Your task to perform on an android device: Add logitech g pro to the cart on bestbuy Image 0: 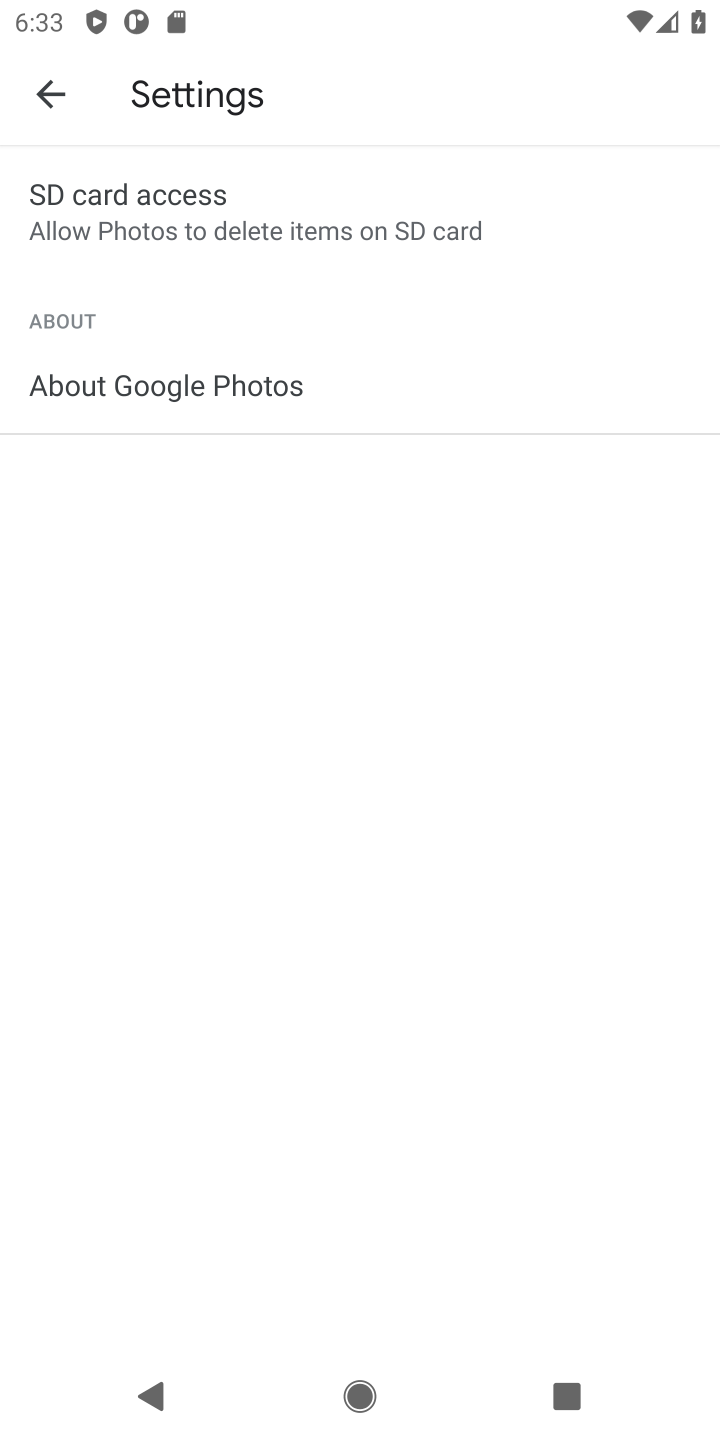
Step 0: press home button
Your task to perform on an android device: Add logitech g pro to the cart on bestbuy Image 1: 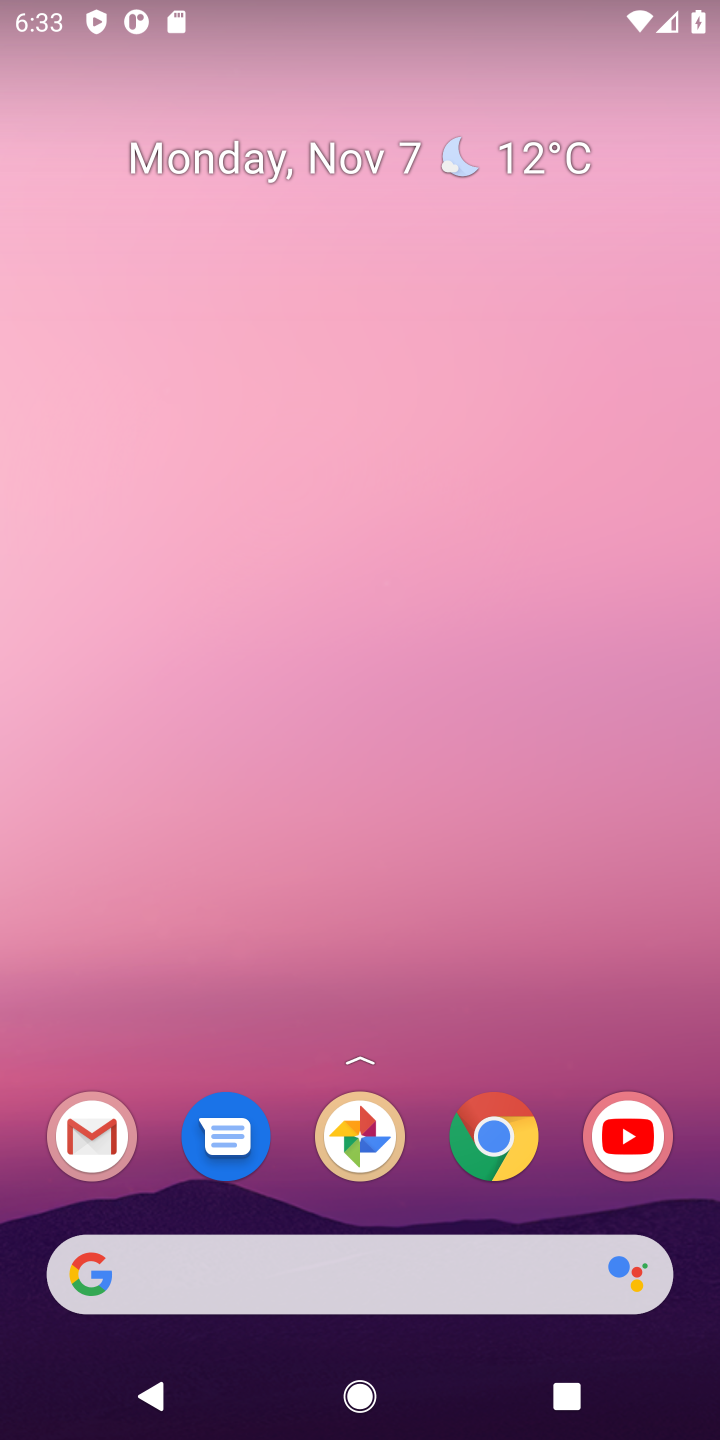
Step 1: click (81, 1276)
Your task to perform on an android device: Add logitech g pro to the cart on bestbuy Image 2: 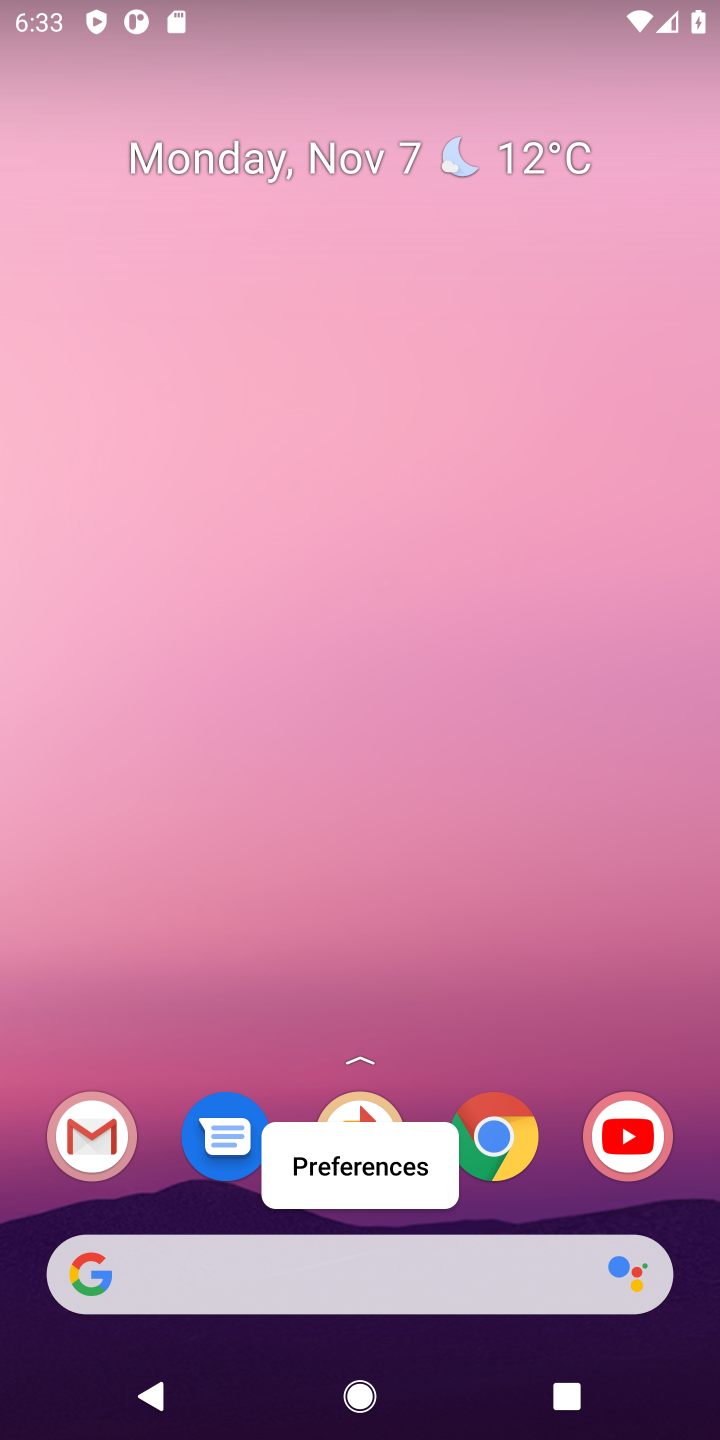
Step 2: click (81, 1276)
Your task to perform on an android device: Add logitech g pro to the cart on bestbuy Image 3: 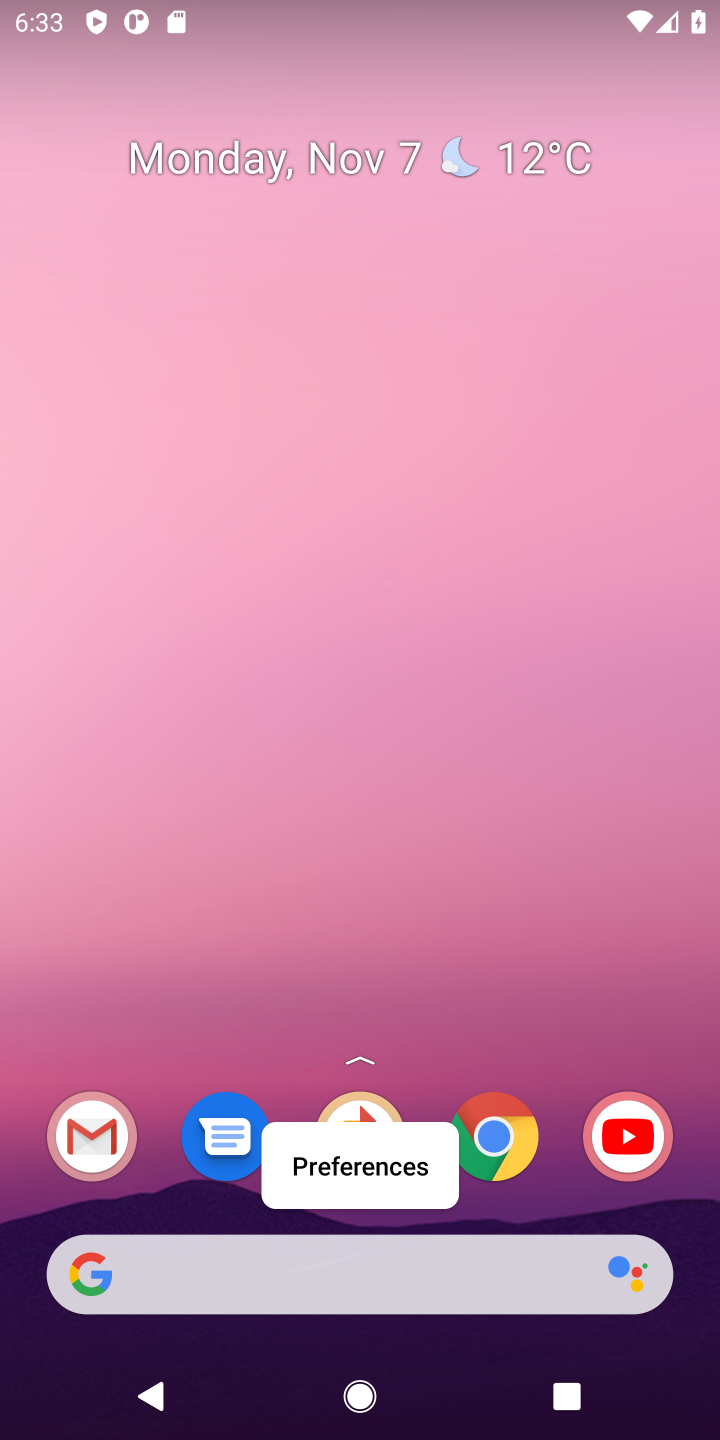
Step 3: click (81, 1276)
Your task to perform on an android device: Add logitech g pro to the cart on bestbuy Image 4: 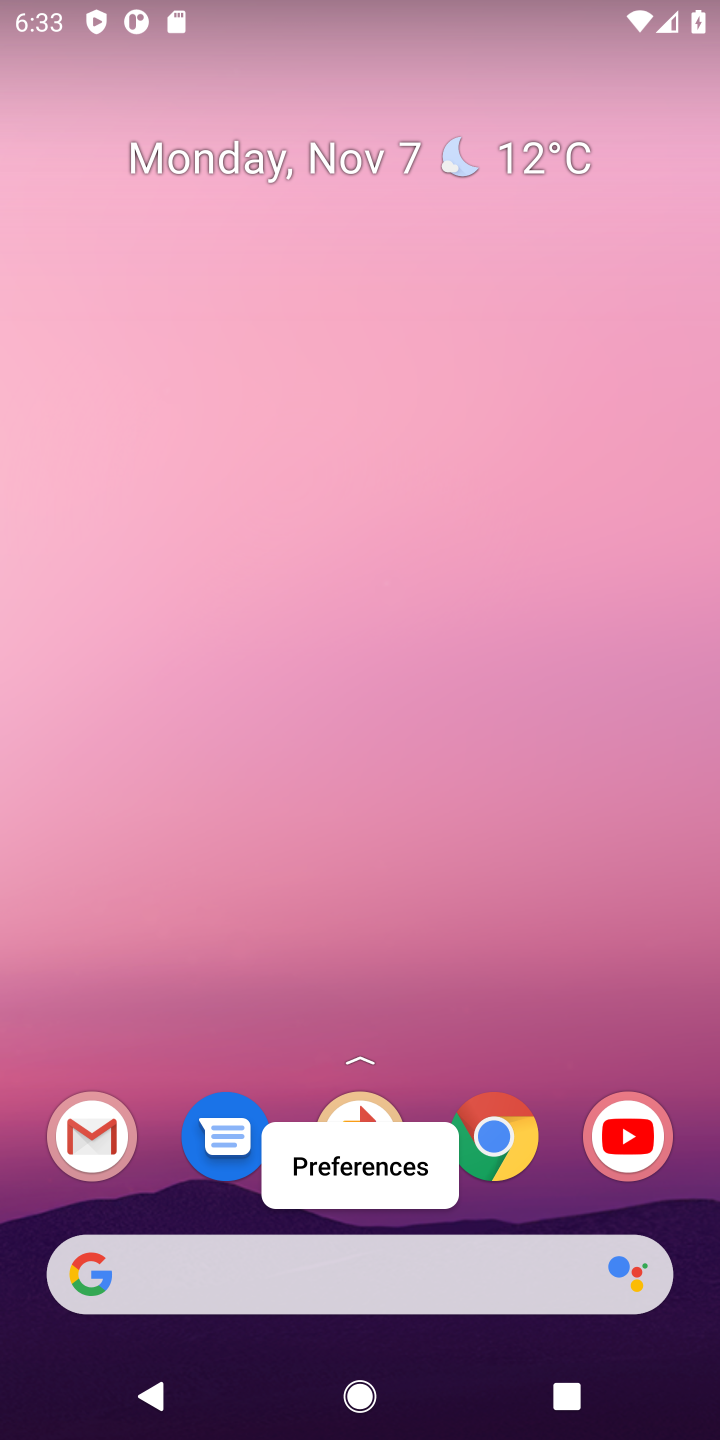
Step 4: click (100, 1265)
Your task to perform on an android device: Add logitech g pro to the cart on bestbuy Image 5: 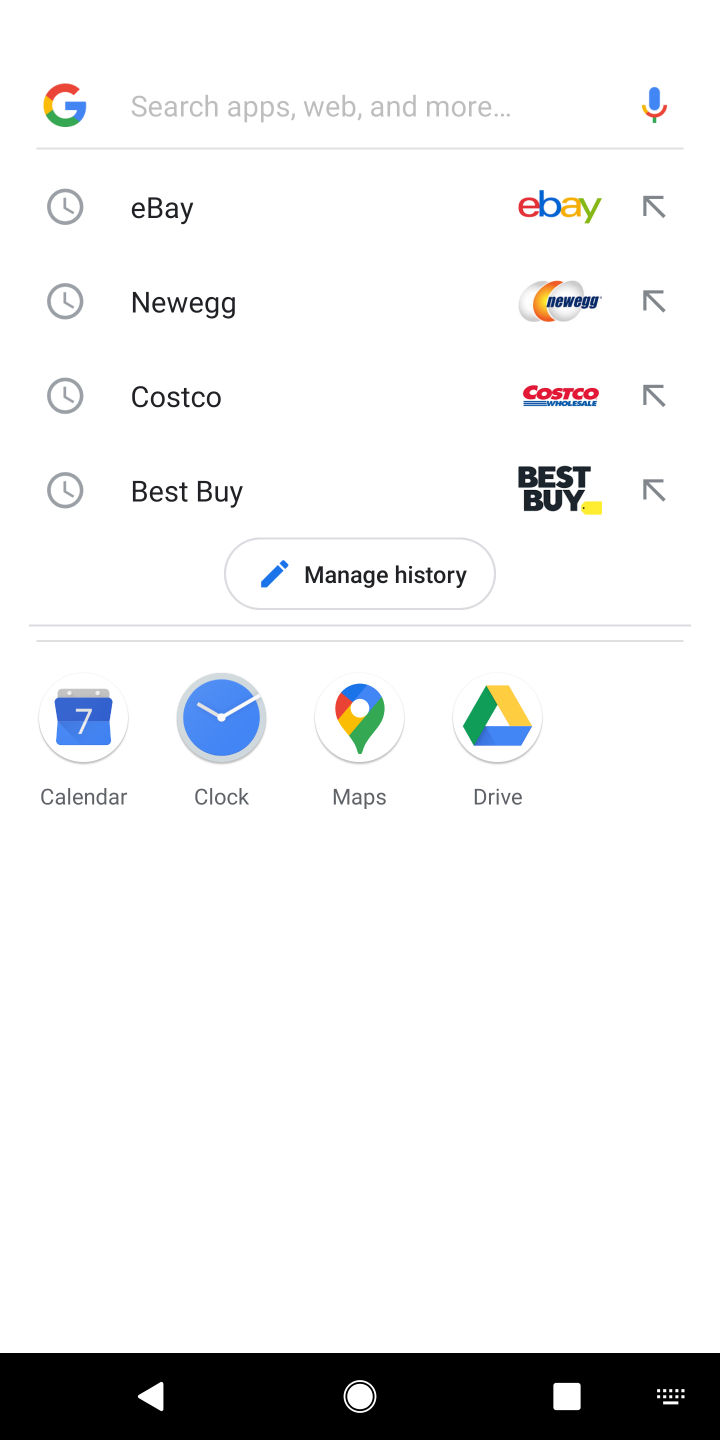
Step 5: click (164, 475)
Your task to perform on an android device: Add logitech g pro to the cart on bestbuy Image 6: 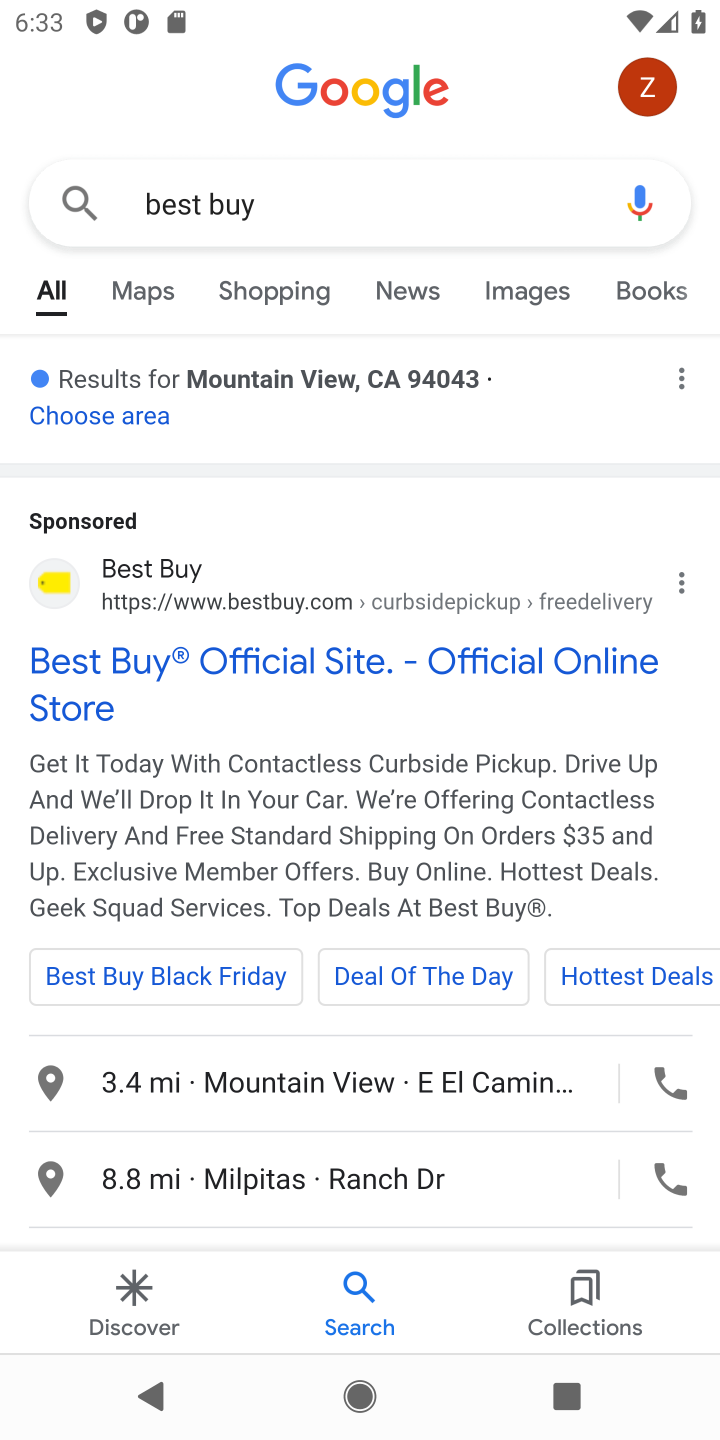
Step 6: click (147, 555)
Your task to perform on an android device: Add logitech g pro to the cart on bestbuy Image 7: 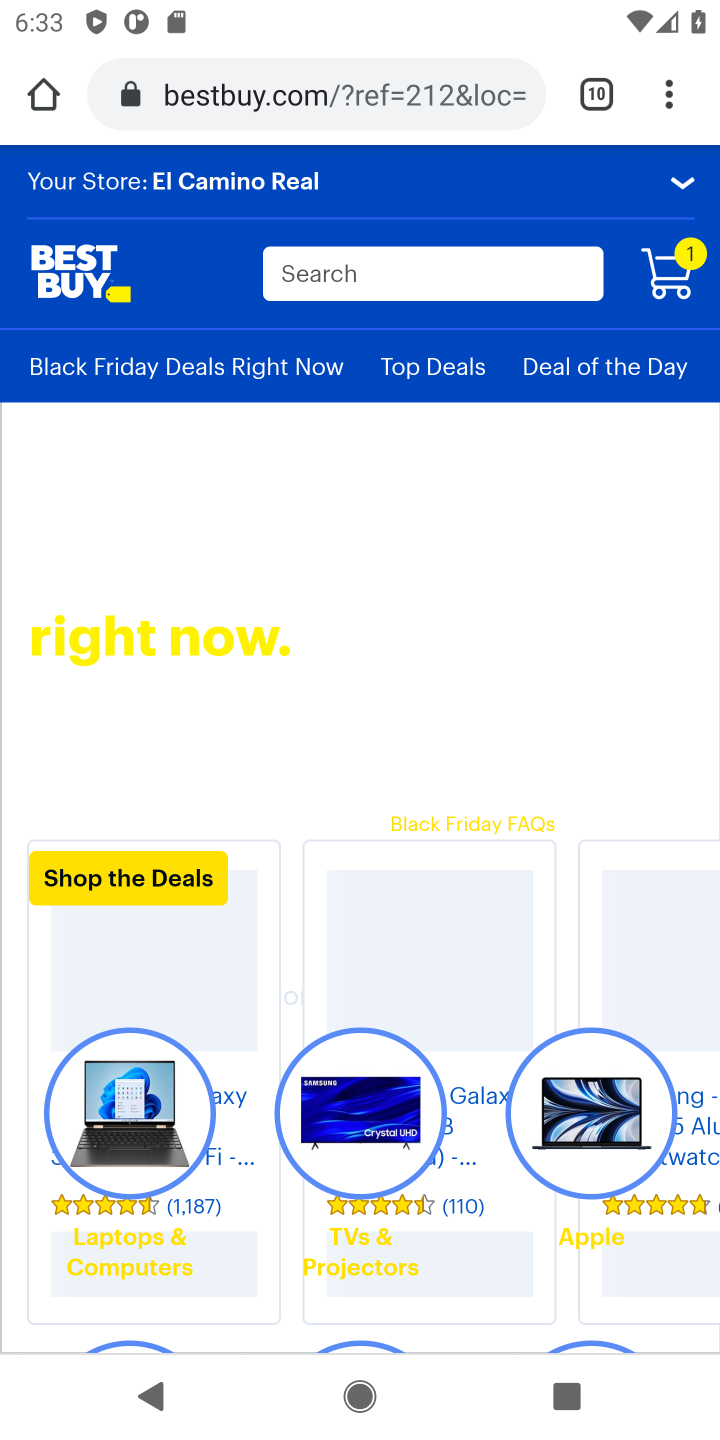
Step 7: click (370, 263)
Your task to perform on an android device: Add logitech g pro to the cart on bestbuy Image 8: 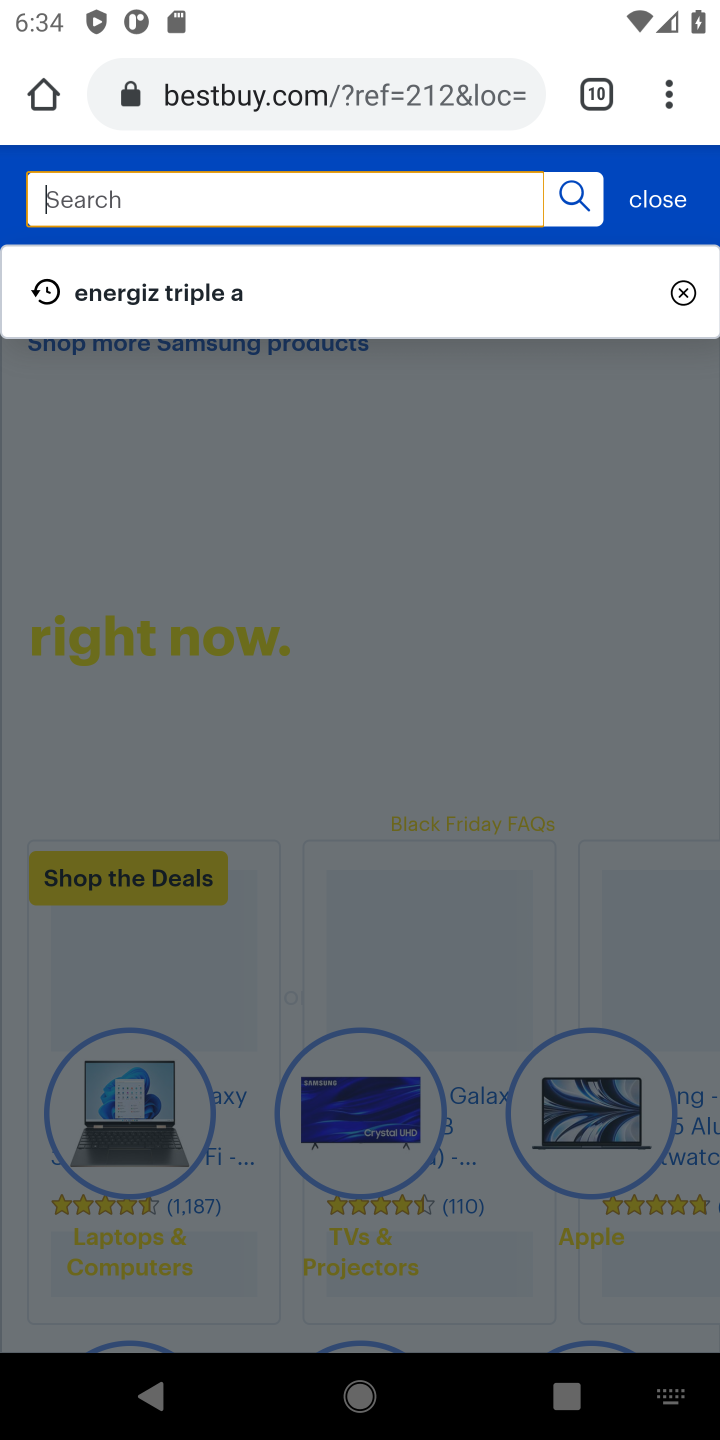
Step 8: type "logitech g pro"
Your task to perform on an android device: Add logitech g pro to the cart on bestbuy Image 9: 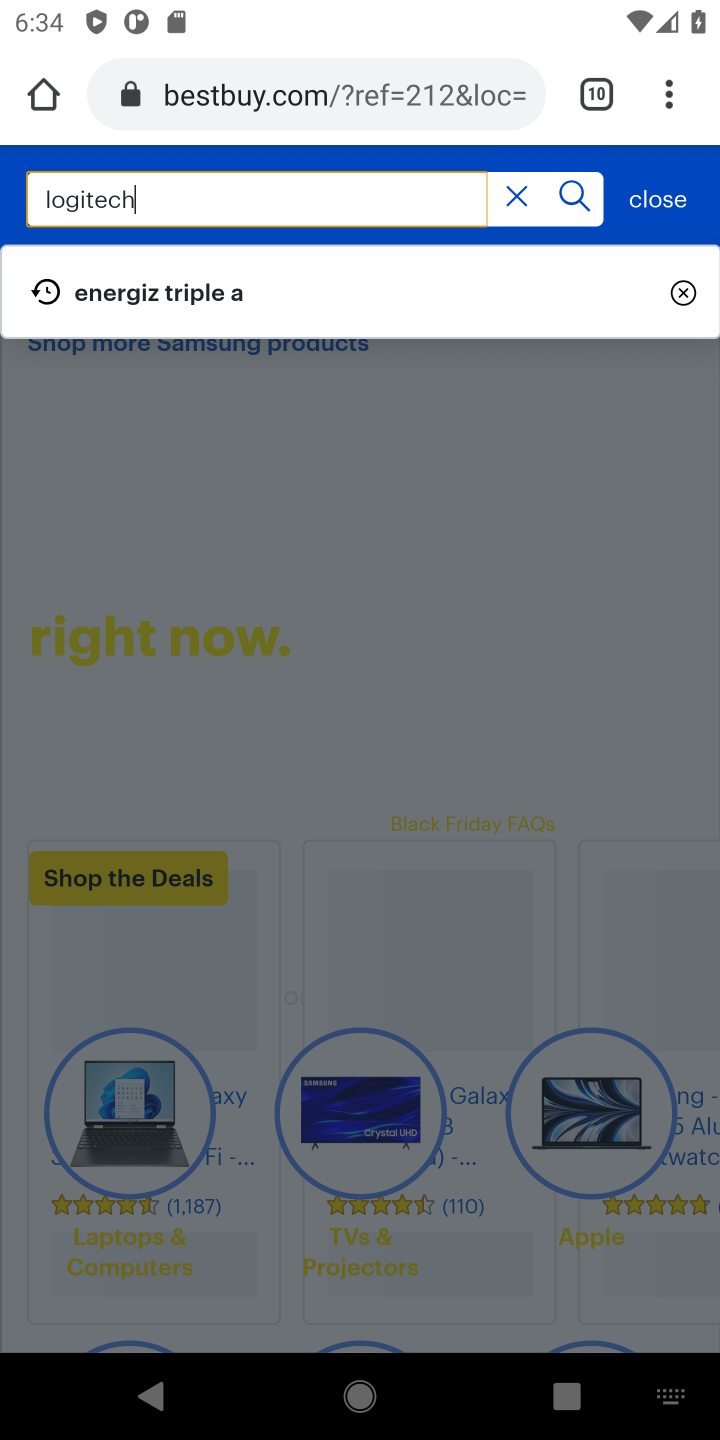
Step 9: type ""
Your task to perform on an android device: Add logitech g pro to the cart on bestbuy Image 10: 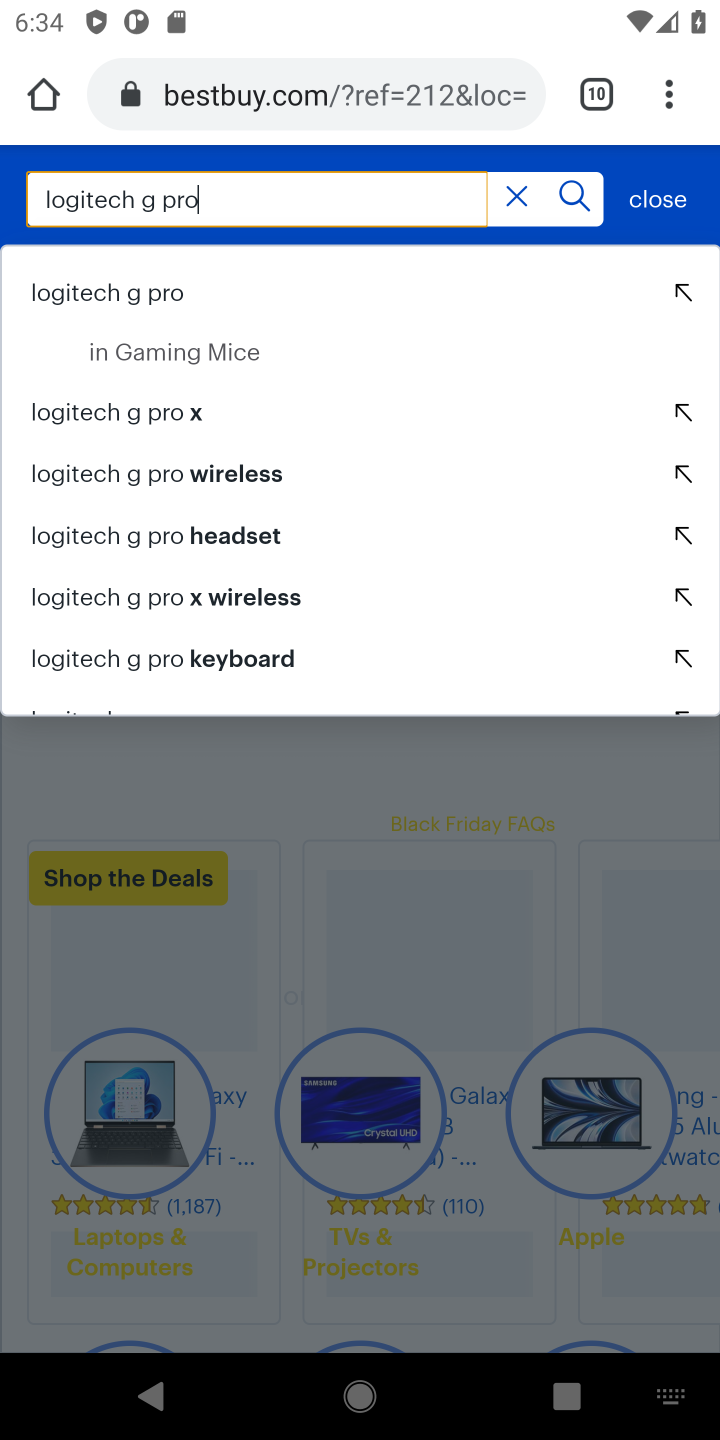
Step 10: click (121, 282)
Your task to perform on an android device: Add logitech g pro to the cart on bestbuy Image 11: 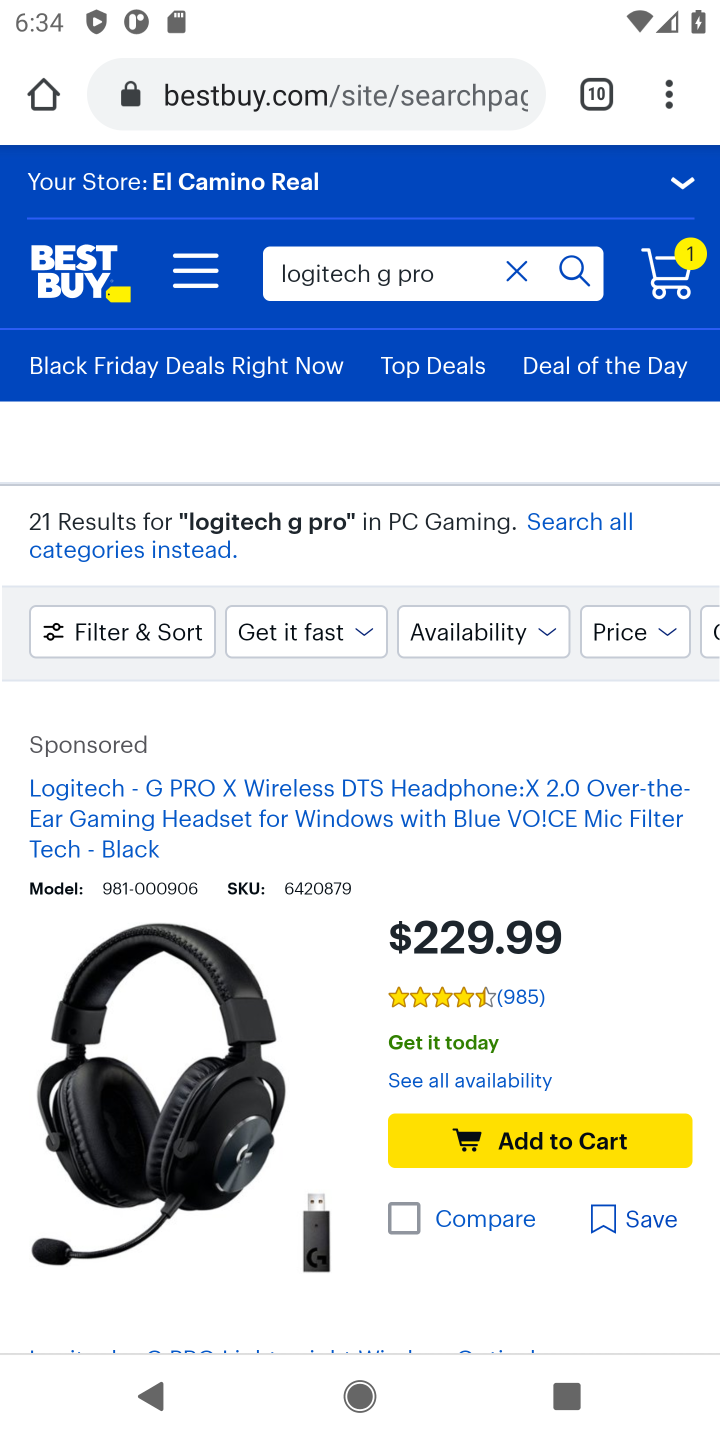
Step 11: click (502, 1056)
Your task to perform on an android device: Add logitech g pro to the cart on bestbuy Image 12: 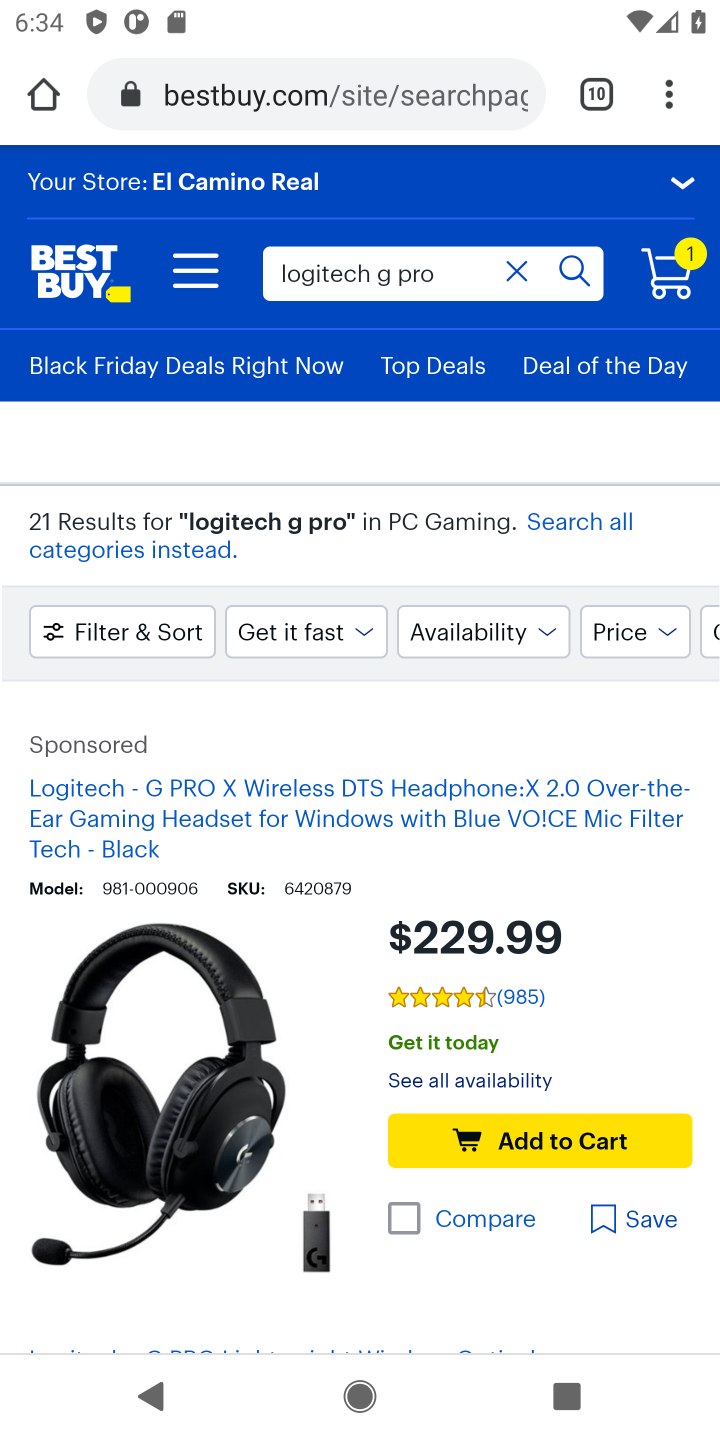
Step 12: click (507, 1143)
Your task to perform on an android device: Add logitech g pro to the cart on bestbuy Image 13: 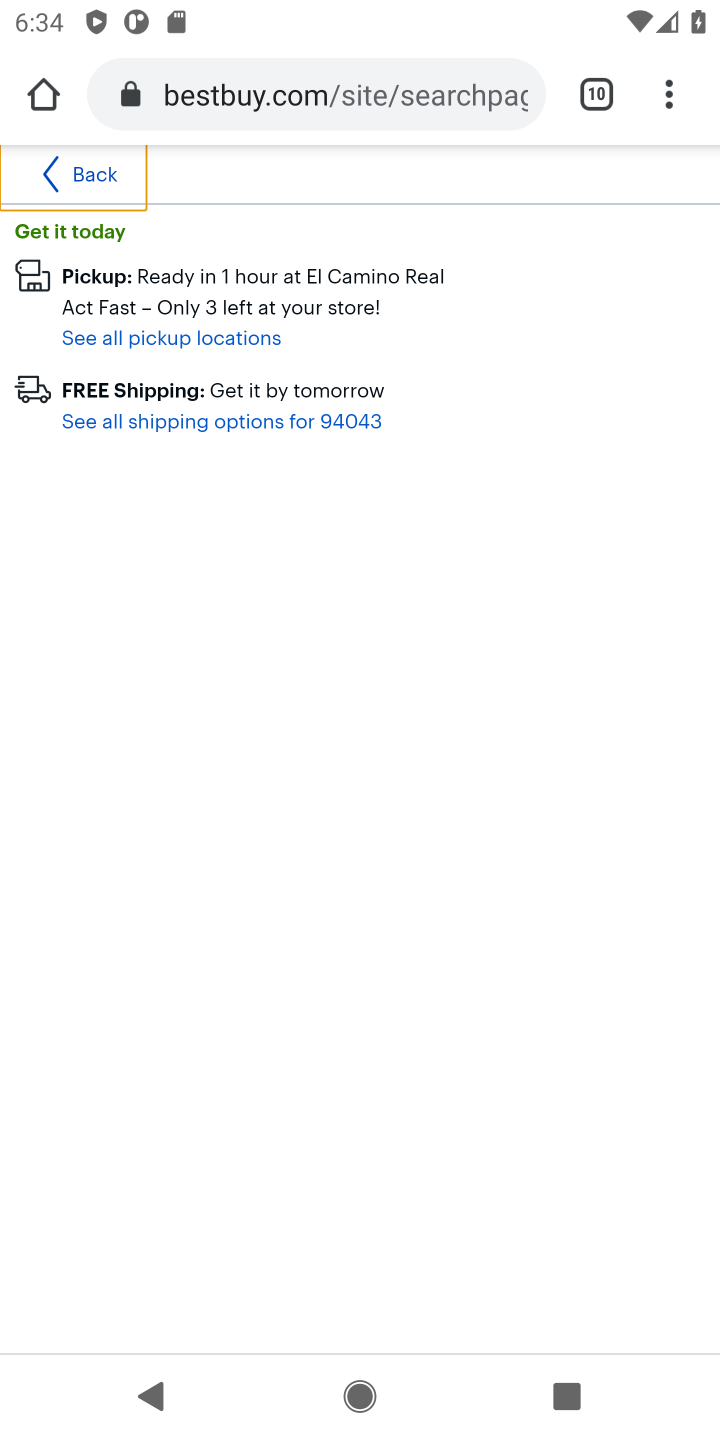
Step 13: click (80, 157)
Your task to perform on an android device: Add logitech g pro to the cart on bestbuy Image 14: 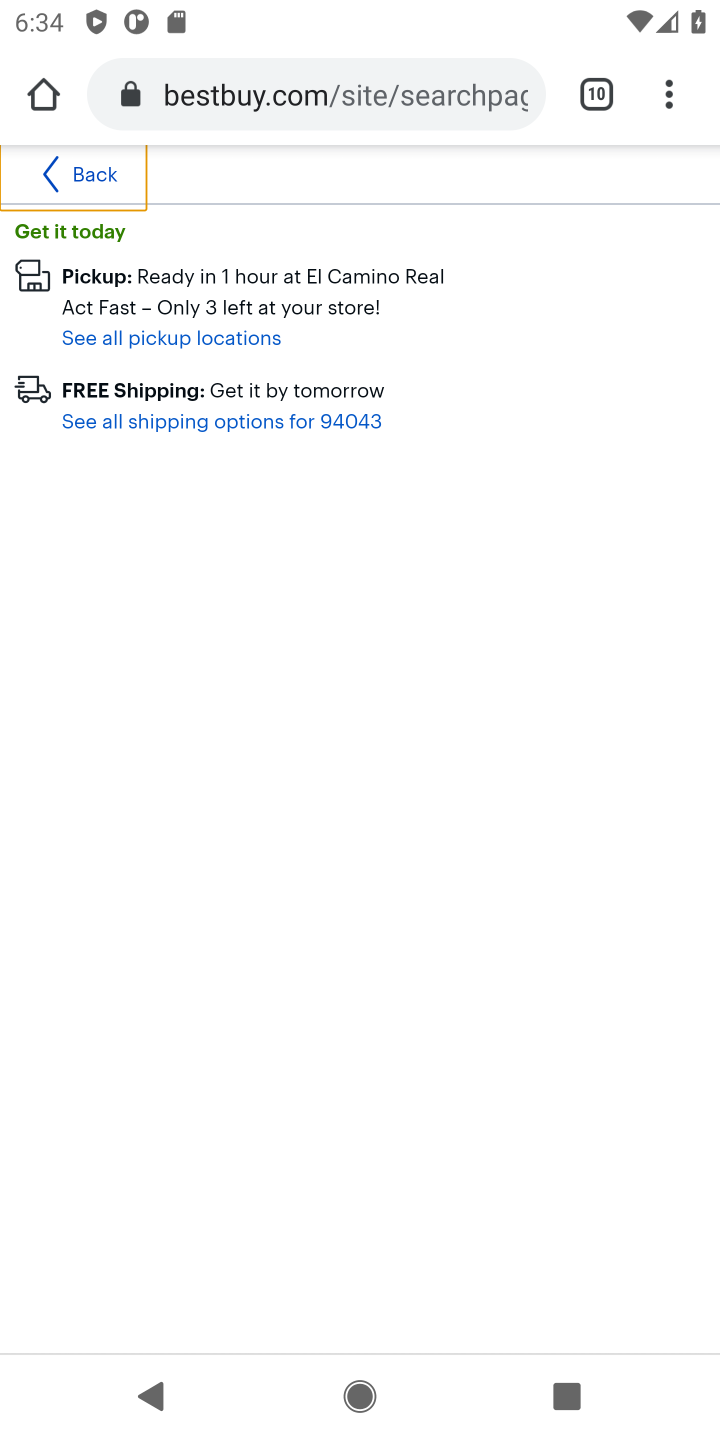
Step 14: click (73, 167)
Your task to perform on an android device: Add logitech g pro to the cart on bestbuy Image 15: 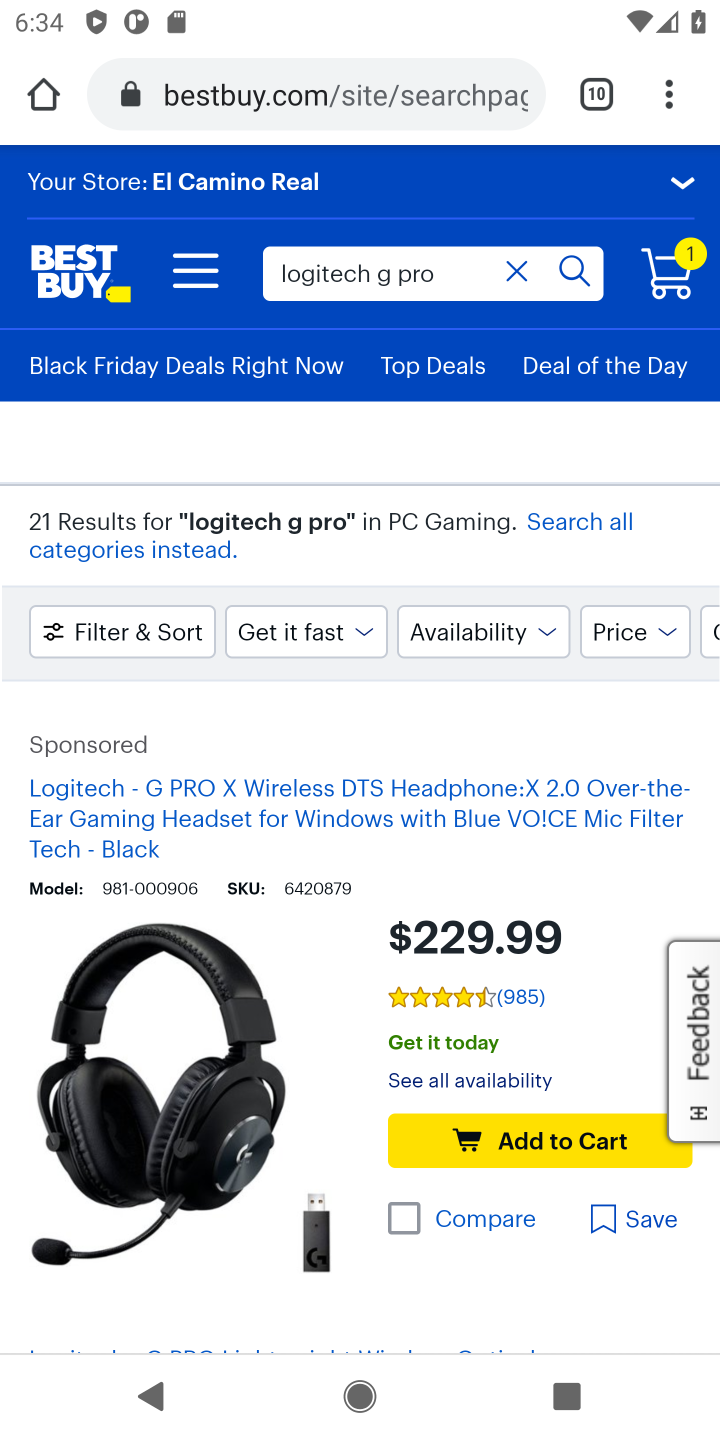
Step 15: click (525, 1144)
Your task to perform on an android device: Add logitech g pro to the cart on bestbuy Image 16: 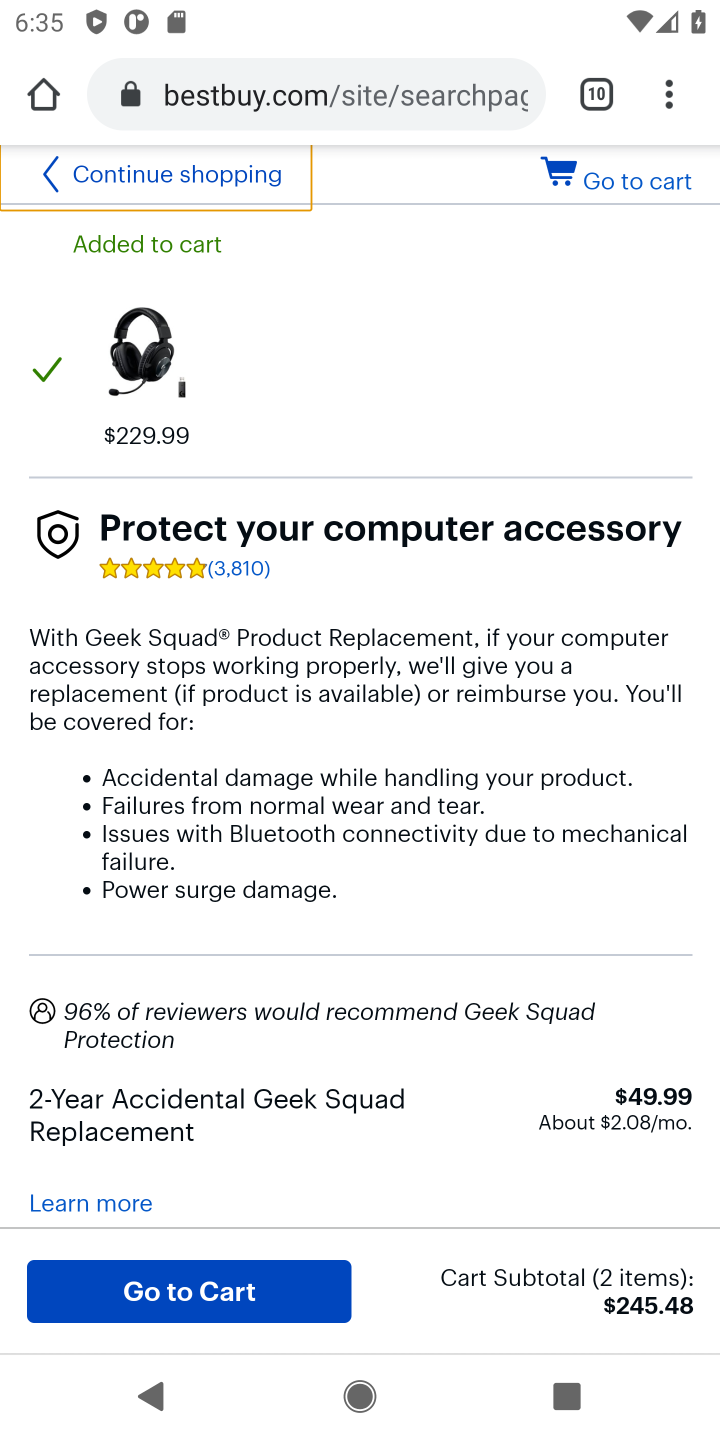
Step 16: task complete